Your task to perform on an android device: turn on showing notifications on the lock screen Image 0: 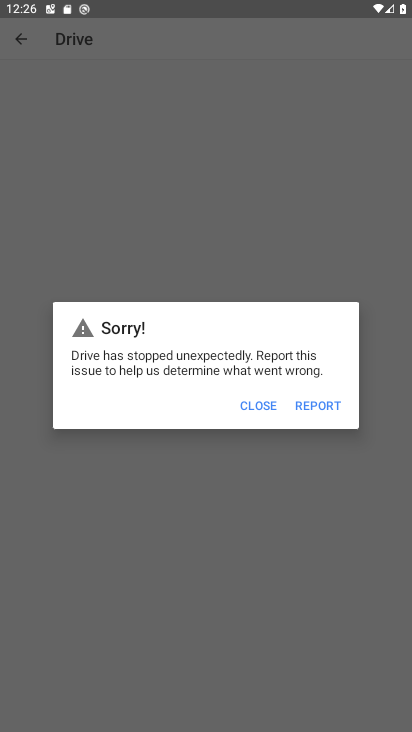
Step 0: press home button
Your task to perform on an android device: turn on showing notifications on the lock screen Image 1: 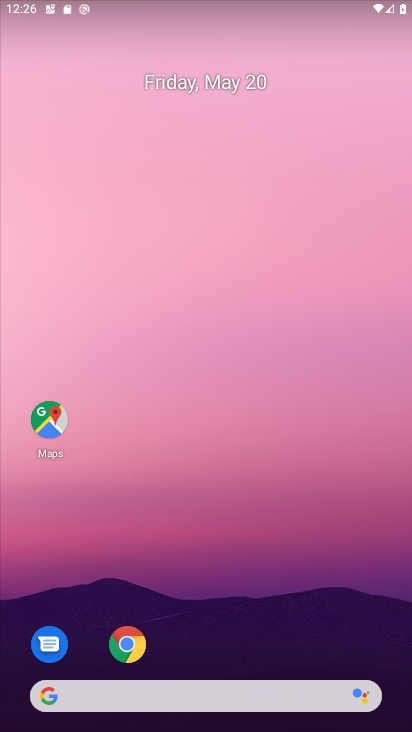
Step 1: drag from (201, 628) to (201, 327)
Your task to perform on an android device: turn on showing notifications on the lock screen Image 2: 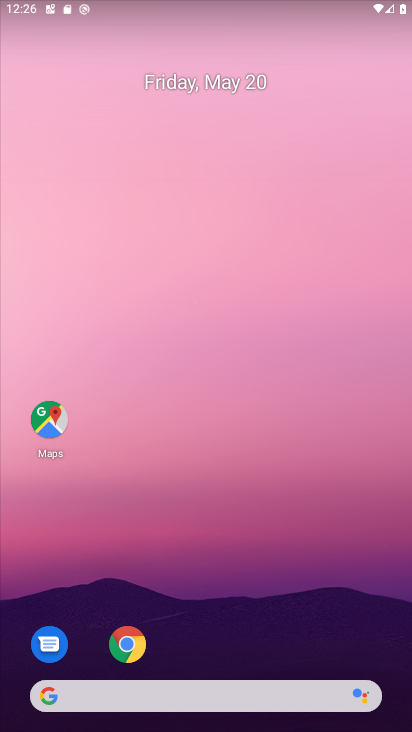
Step 2: drag from (256, 673) to (247, 272)
Your task to perform on an android device: turn on showing notifications on the lock screen Image 3: 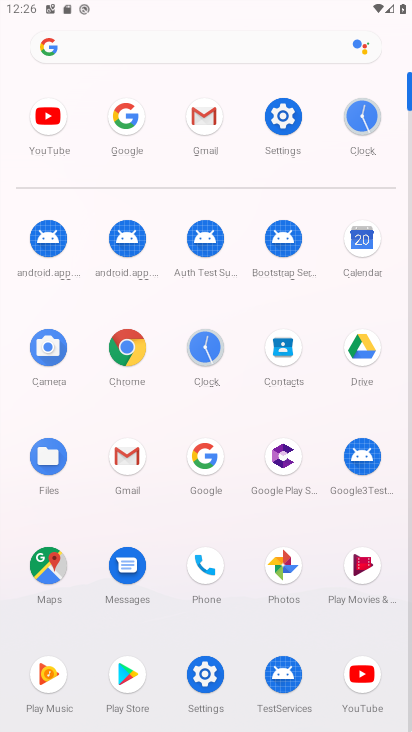
Step 3: click (286, 111)
Your task to perform on an android device: turn on showing notifications on the lock screen Image 4: 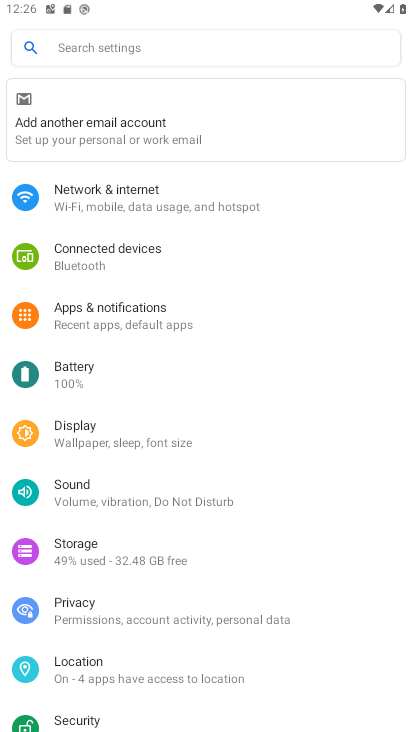
Step 4: drag from (174, 705) to (171, 429)
Your task to perform on an android device: turn on showing notifications on the lock screen Image 5: 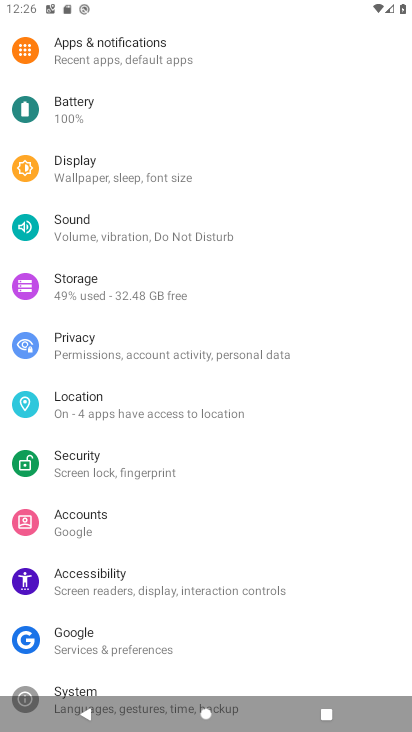
Step 5: drag from (175, 628) to (165, 391)
Your task to perform on an android device: turn on showing notifications on the lock screen Image 6: 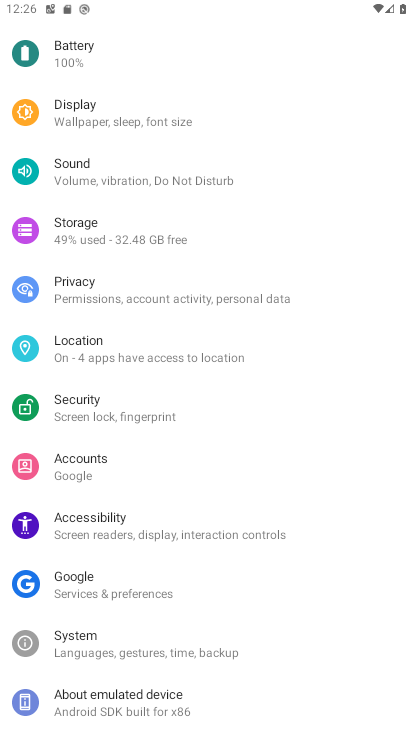
Step 6: click (107, 294)
Your task to perform on an android device: turn on showing notifications on the lock screen Image 7: 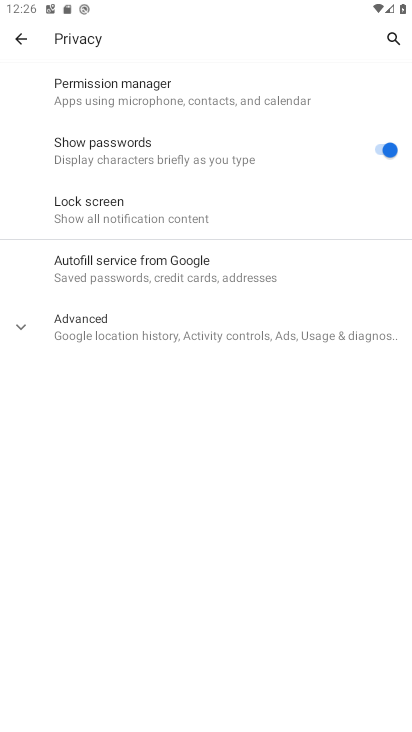
Step 7: click (102, 332)
Your task to perform on an android device: turn on showing notifications on the lock screen Image 8: 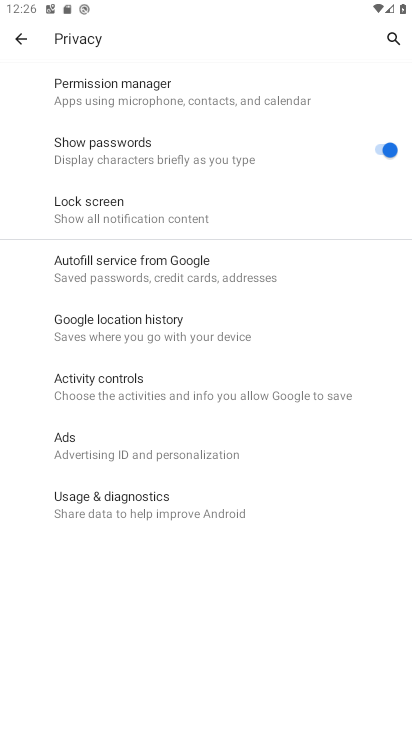
Step 8: click (113, 209)
Your task to perform on an android device: turn on showing notifications on the lock screen Image 9: 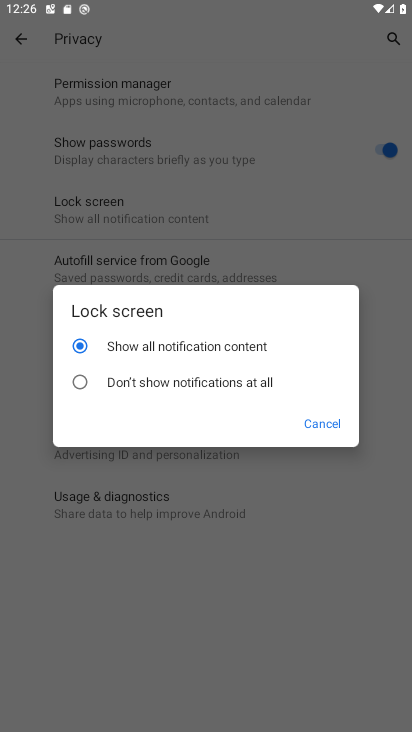
Step 9: click (334, 420)
Your task to perform on an android device: turn on showing notifications on the lock screen Image 10: 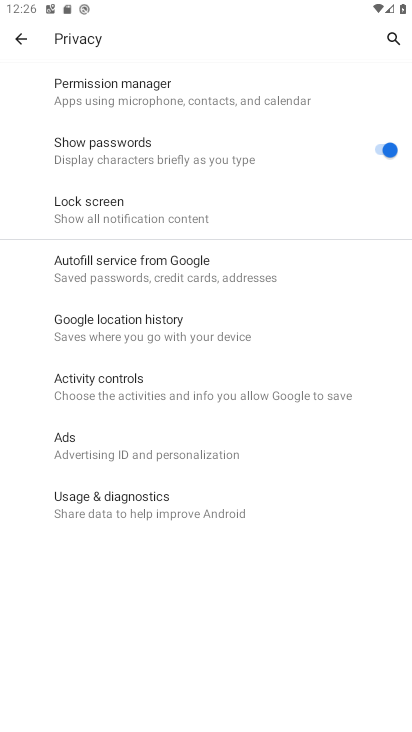
Step 10: task complete